Your task to perform on an android device: turn off picture-in-picture Image 0: 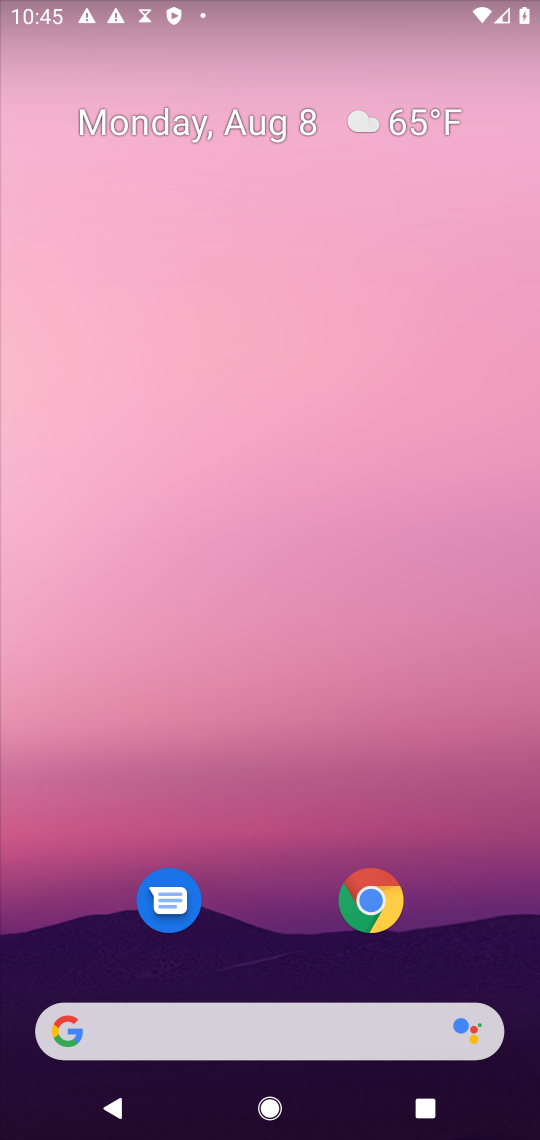
Step 0: drag from (241, 465) to (241, 302)
Your task to perform on an android device: turn off picture-in-picture Image 1: 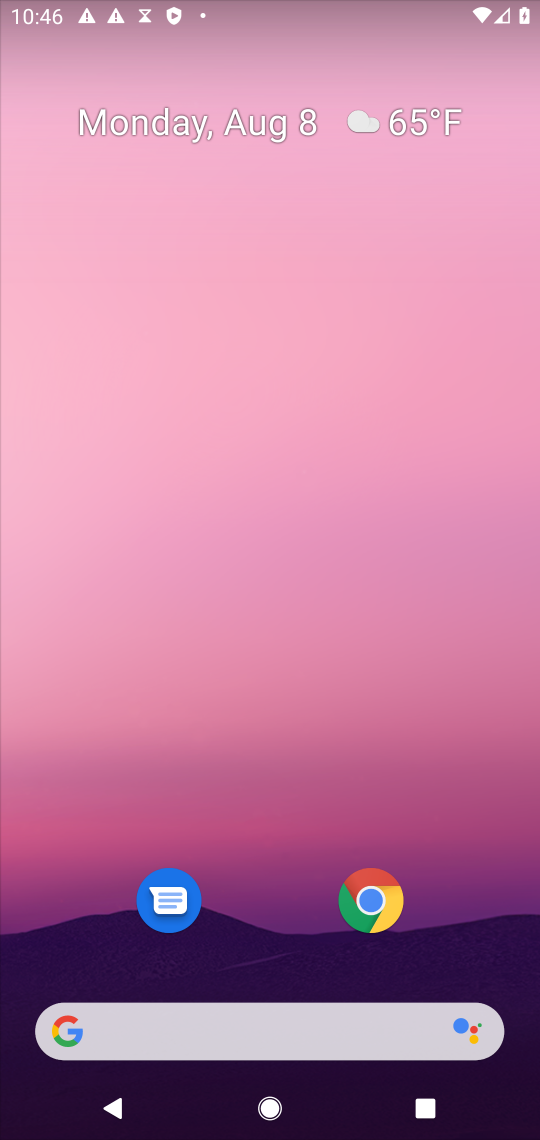
Step 1: drag from (257, 129) to (57, 24)
Your task to perform on an android device: turn off picture-in-picture Image 2: 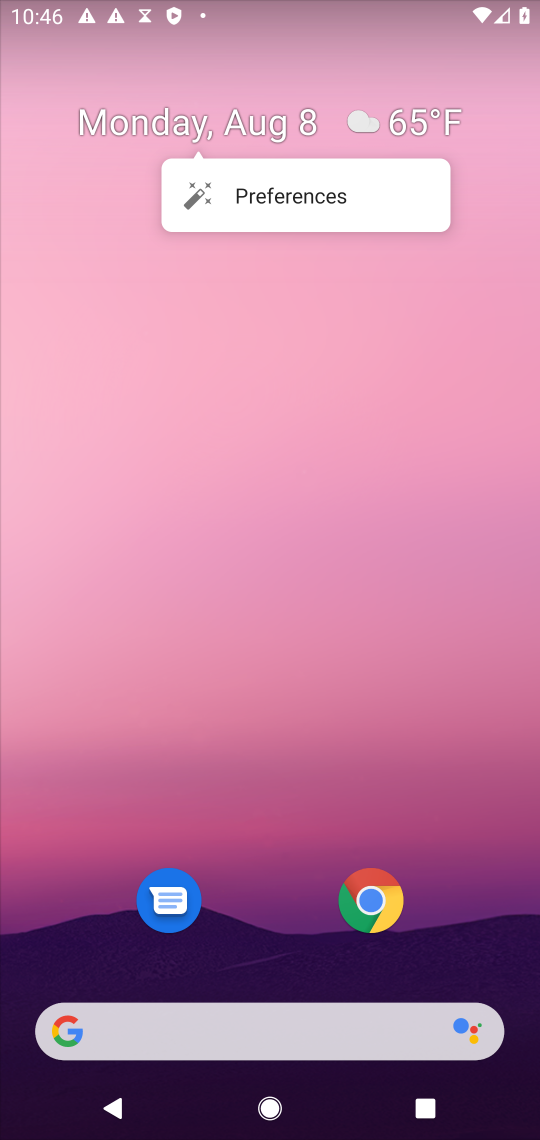
Step 2: drag from (268, 925) to (251, 315)
Your task to perform on an android device: turn off picture-in-picture Image 3: 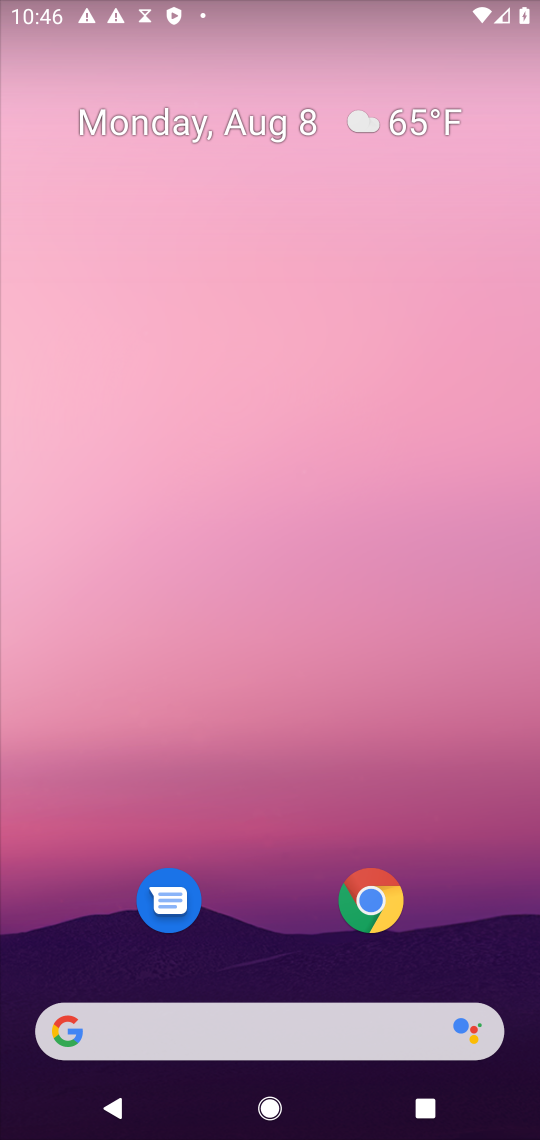
Step 3: drag from (265, 834) to (267, 19)
Your task to perform on an android device: turn off picture-in-picture Image 4: 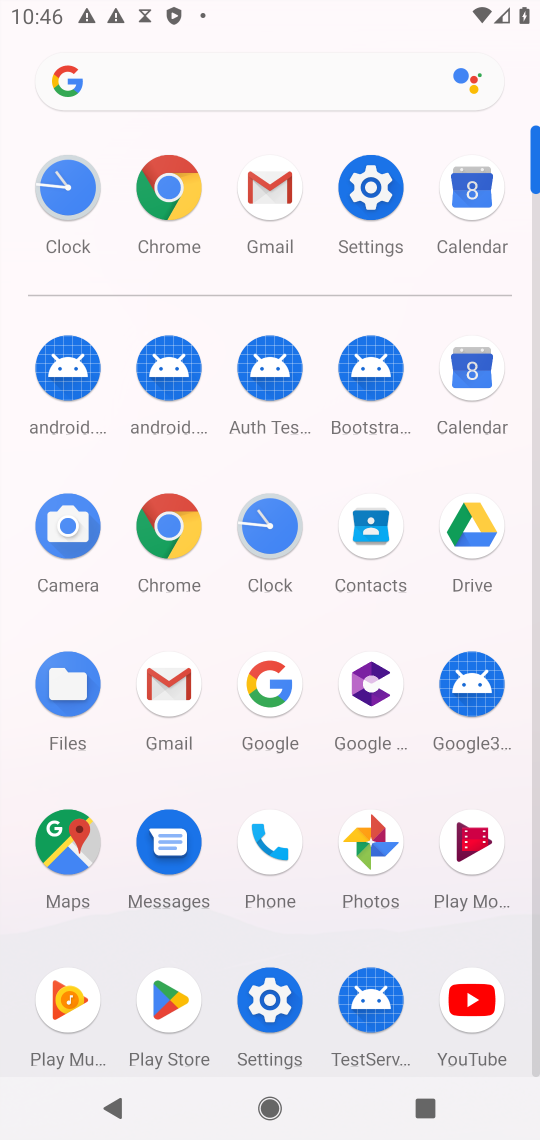
Step 4: click (367, 241)
Your task to perform on an android device: turn off picture-in-picture Image 5: 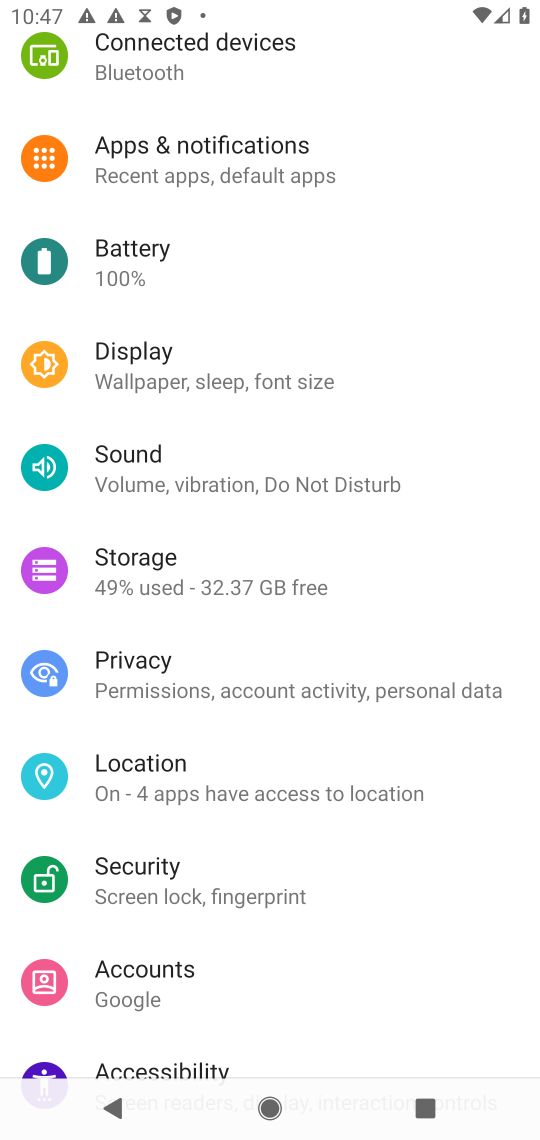
Step 5: click (218, 149)
Your task to perform on an android device: turn off picture-in-picture Image 6: 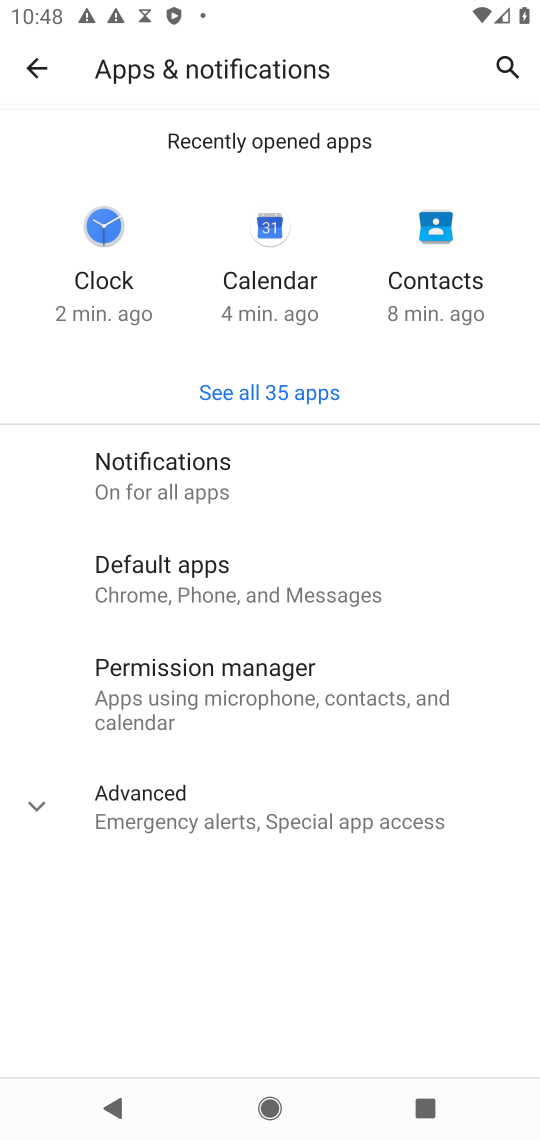
Step 6: click (182, 808)
Your task to perform on an android device: turn off picture-in-picture Image 7: 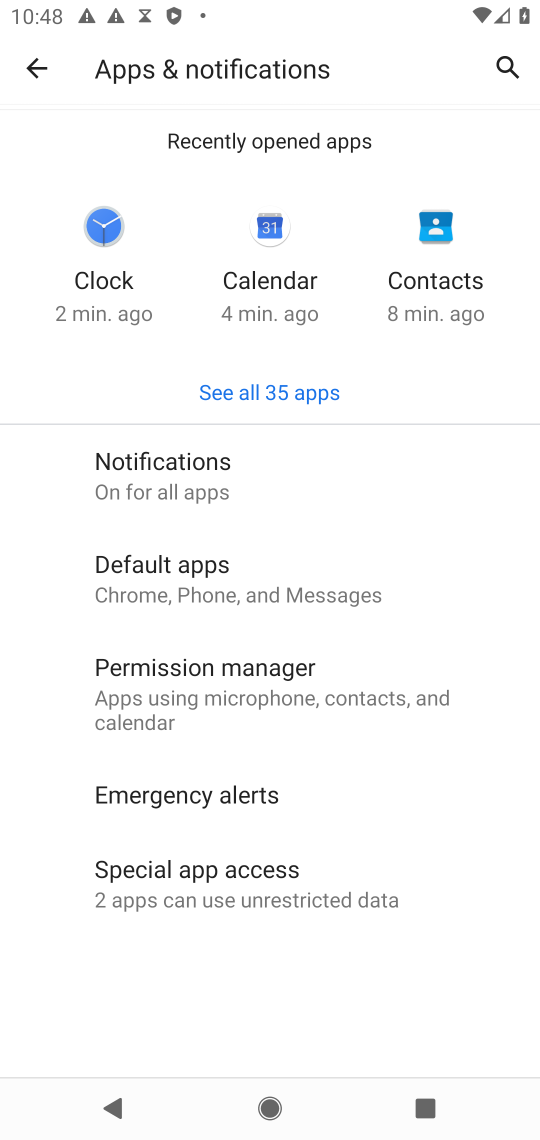
Step 7: click (184, 874)
Your task to perform on an android device: turn off picture-in-picture Image 8: 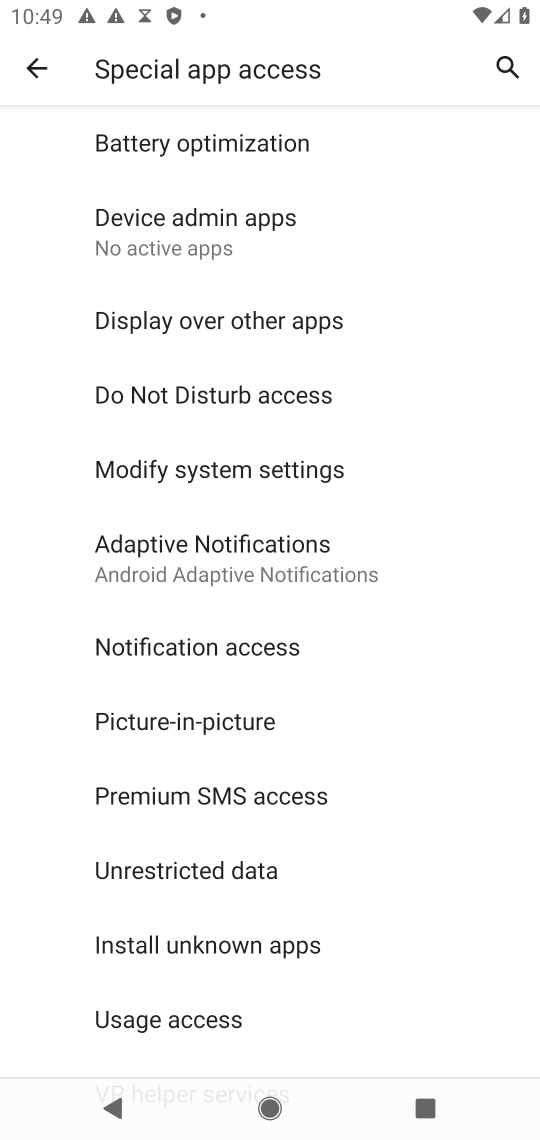
Step 8: click (217, 707)
Your task to perform on an android device: turn off picture-in-picture Image 9: 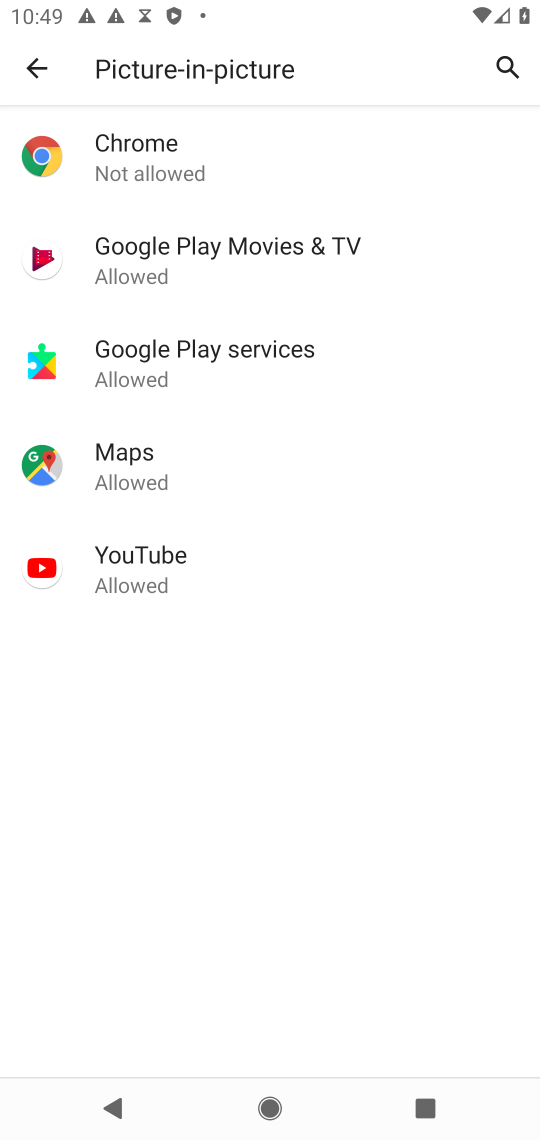
Step 9: click (122, 144)
Your task to perform on an android device: turn off picture-in-picture Image 10: 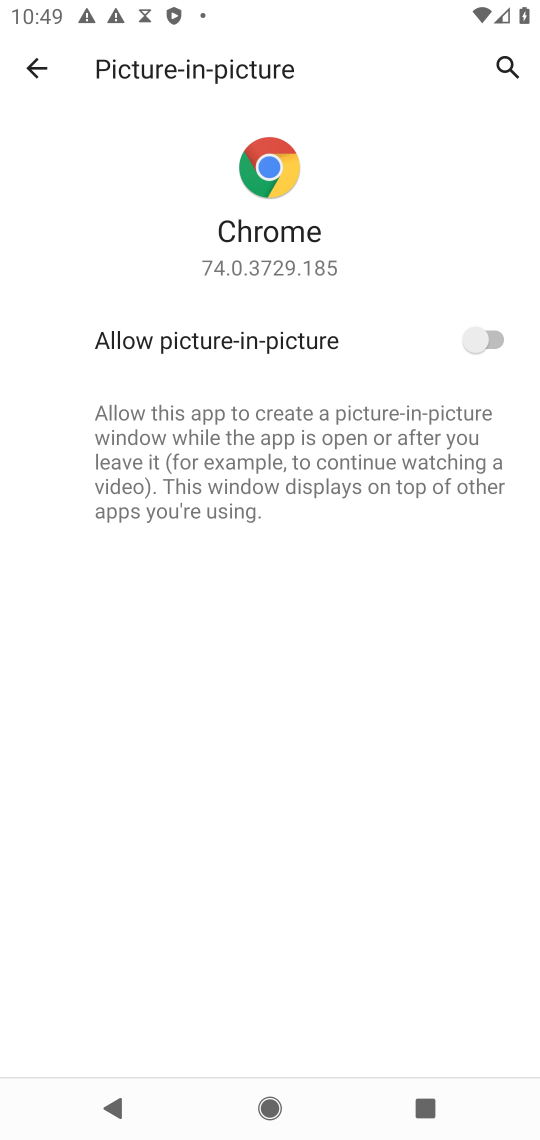
Step 10: task complete